Your task to perform on an android device: Open Google Maps Image 0: 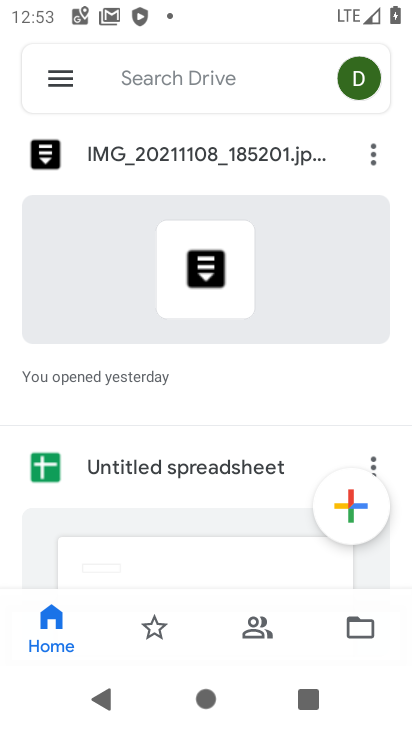
Step 0: press home button
Your task to perform on an android device: Open Google Maps Image 1: 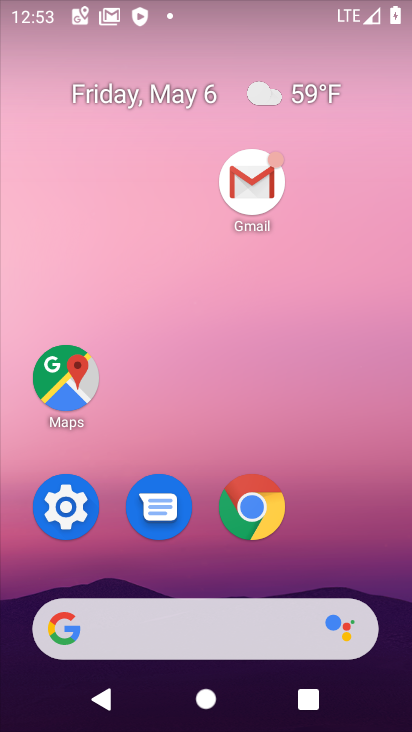
Step 1: click (59, 387)
Your task to perform on an android device: Open Google Maps Image 2: 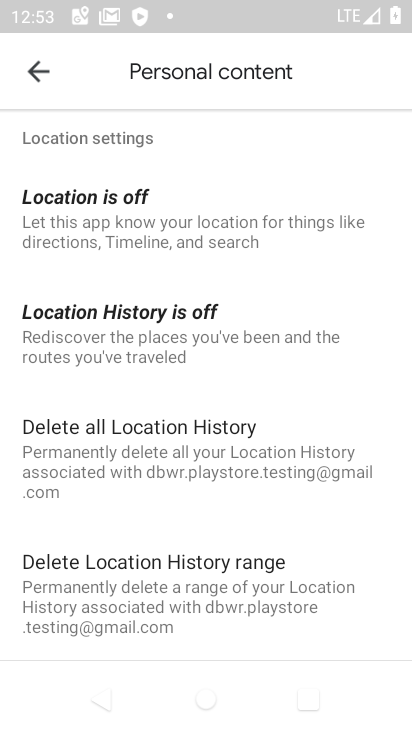
Step 2: click (39, 76)
Your task to perform on an android device: Open Google Maps Image 3: 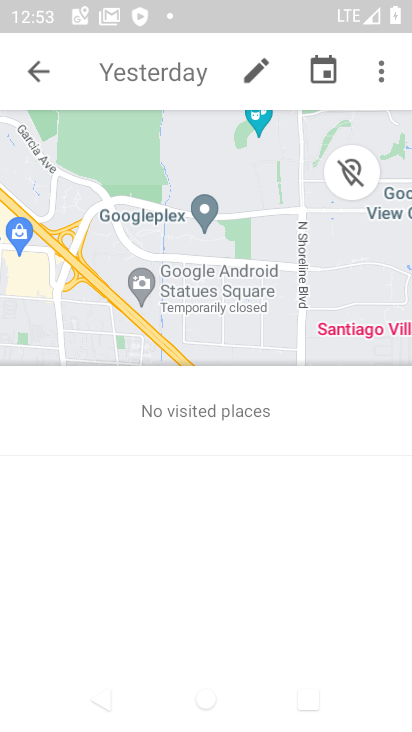
Step 3: task complete